Your task to perform on an android device: Go to wifi settings Image 0: 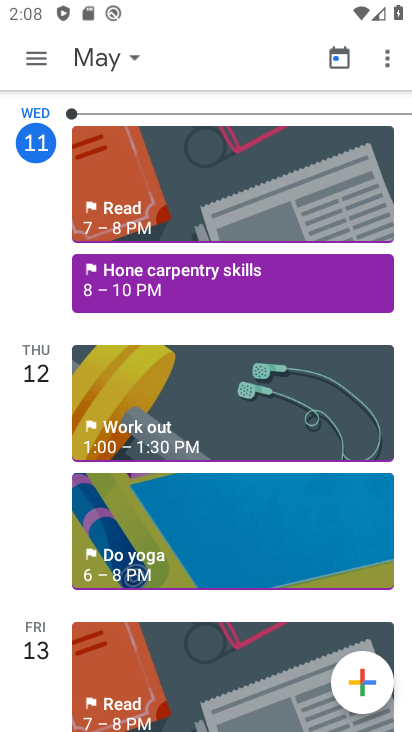
Step 0: press home button
Your task to perform on an android device: Go to wifi settings Image 1: 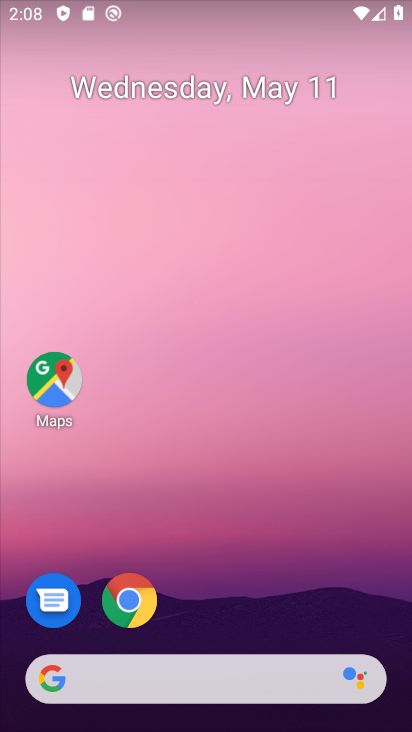
Step 1: drag from (195, 520) to (277, 10)
Your task to perform on an android device: Go to wifi settings Image 2: 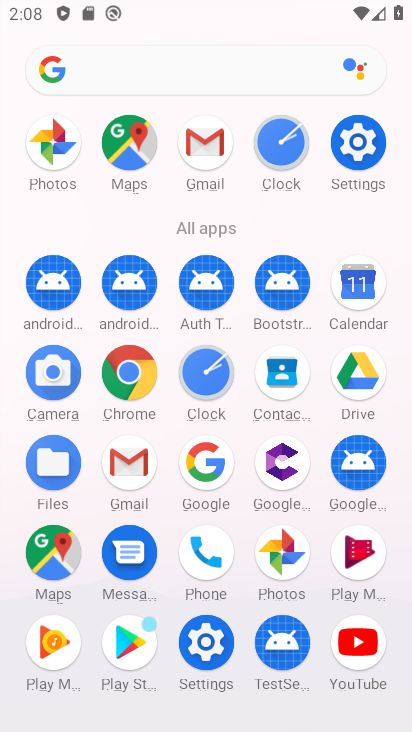
Step 2: click (354, 141)
Your task to perform on an android device: Go to wifi settings Image 3: 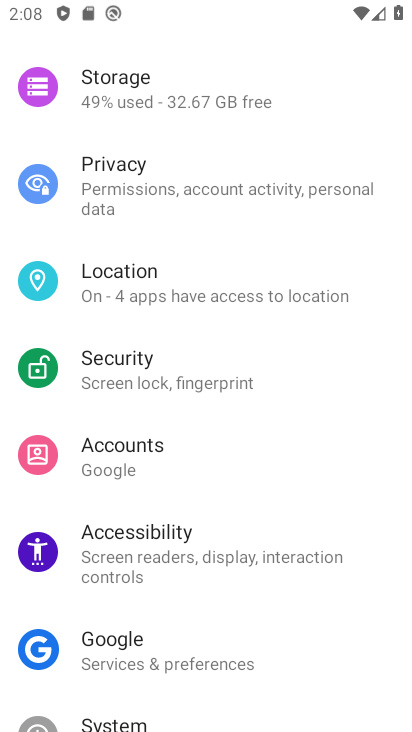
Step 3: drag from (195, 103) to (193, 489)
Your task to perform on an android device: Go to wifi settings Image 4: 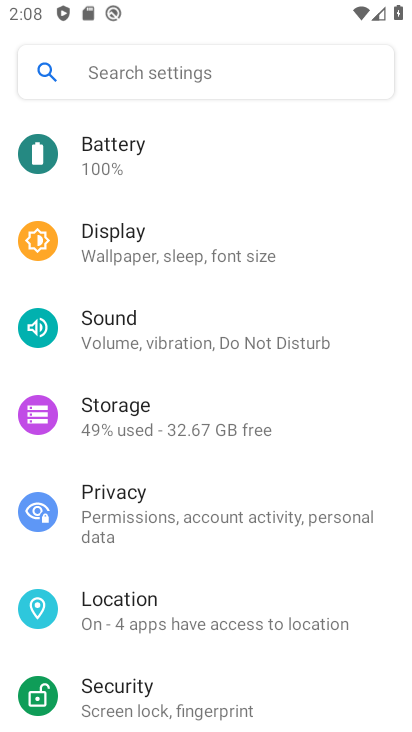
Step 4: drag from (191, 217) to (202, 450)
Your task to perform on an android device: Go to wifi settings Image 5: 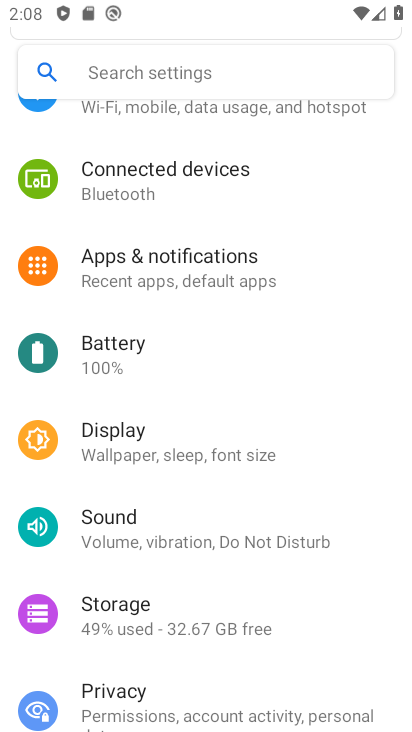
Step 5: drag from (143, 169) to (173, 507)
Your task to perform on an android device: Go to wifi settings Image 6: 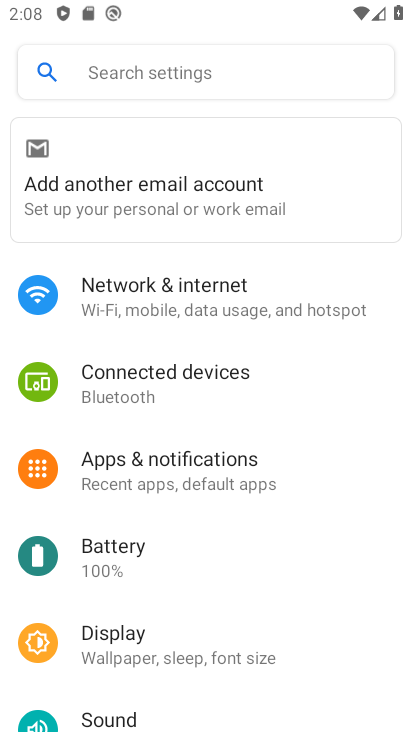
Step 6: click (193, 304)
Your task to perform on an android device: Go to wifi settings Image 7: 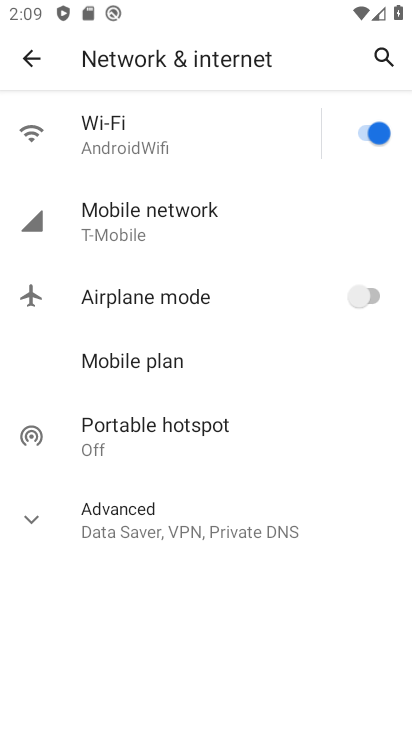
Step 7: click (193, 137)
Your task to perform on an android device: Go to wifi settings Image 8: 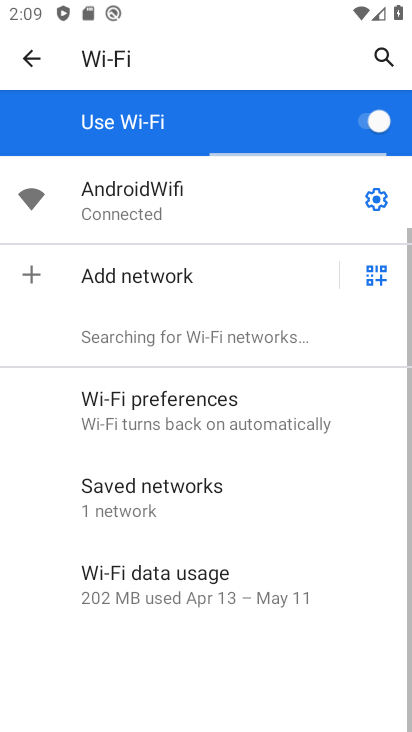
Step 8: task complete